Your task to perform on an android device: Open battery settings Image 0: 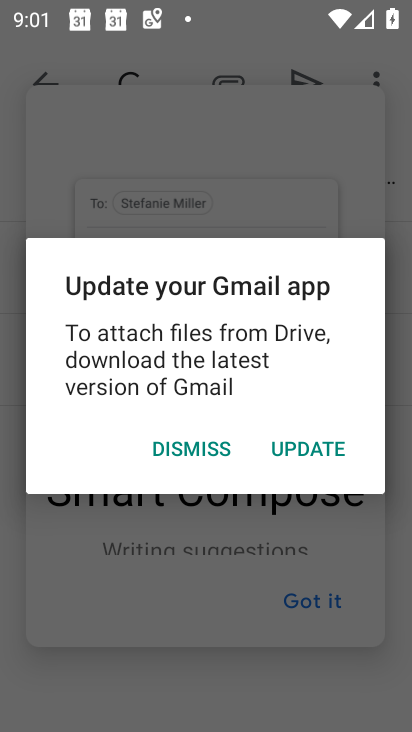
Step 0: press home button
Your task to perform on an android device: Open battery settings Image 1: 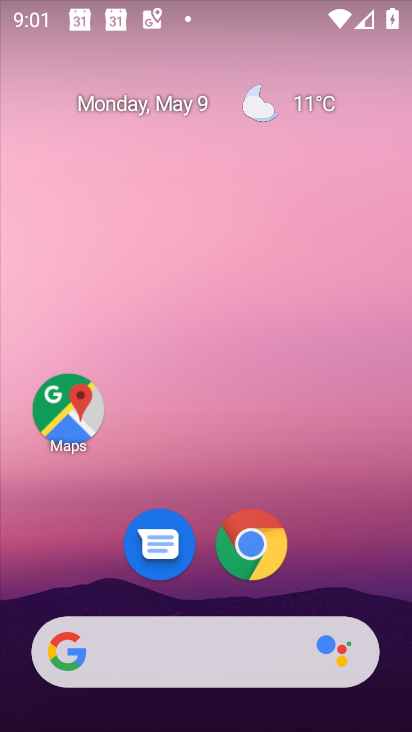
Step 1: drag from (394, 509) to (394, 305)
Your task to perform on an android device: Open battery settings Image 2: 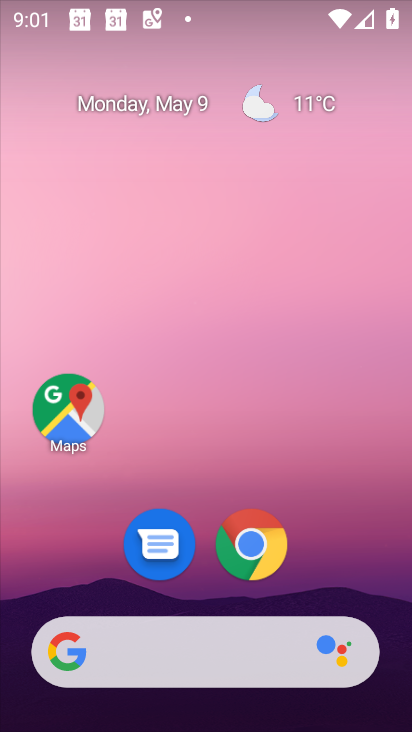
Step 2: drag from (401, 660) to (380, 198)
Your task to perform on an android device: Open battery settings Image 3: 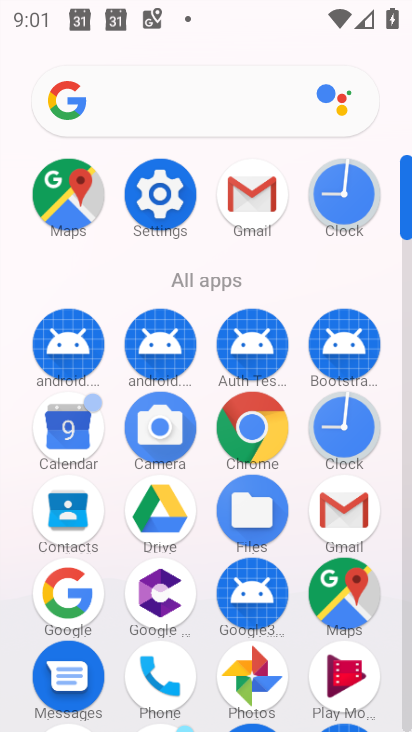
Step 3: click (161, 178)
Your task to perform on an android device: Open battery settings Image 4: 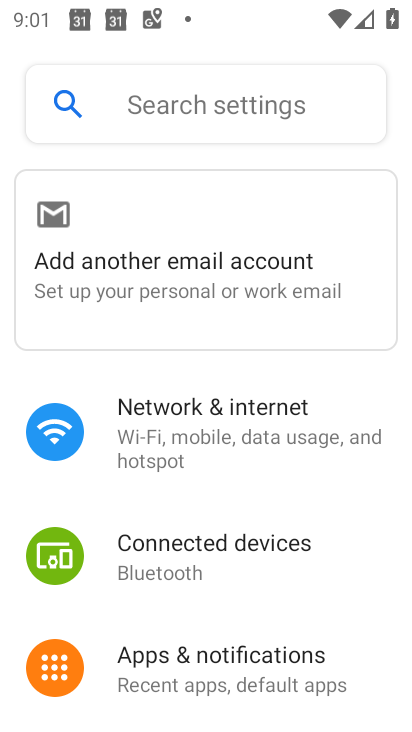
Step 4: drag from (367, 680) to (356, 429)
Your task to perform on an android device: Open battery settings Image 5: 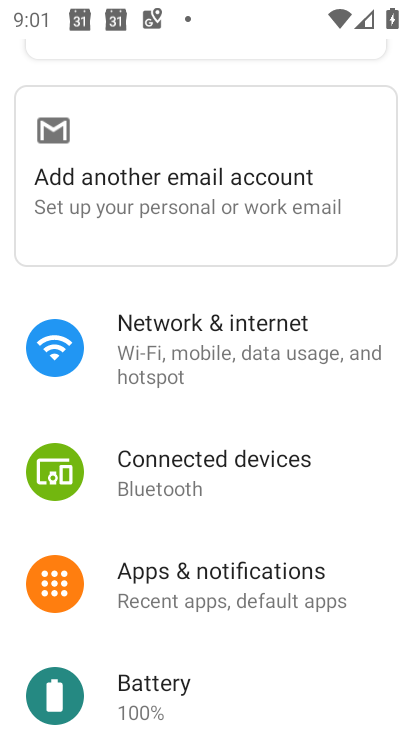
Step 5: click (136, 695)
Your task to perform on an android device: Open battery settings Image 6: 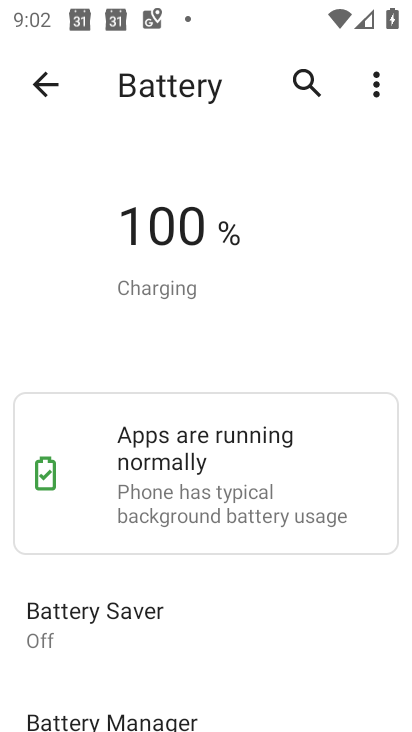
Step 6: task complete